Your task to perform on an android device: turn off location Image 0: 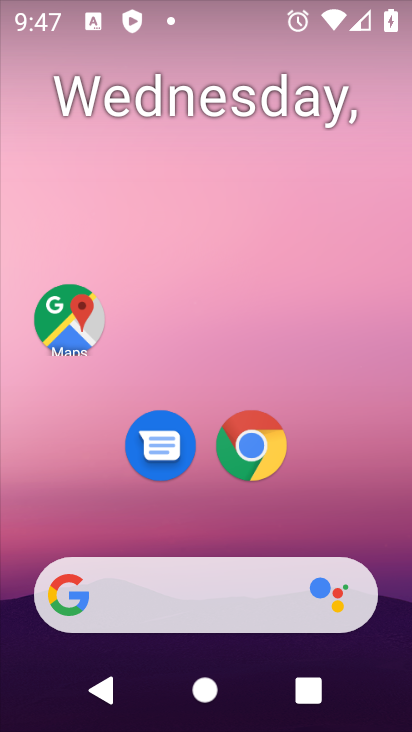
Step 0: drag from (343, 505) to (318, 59)
Your task to perform on an android device: turn off location Image 1: 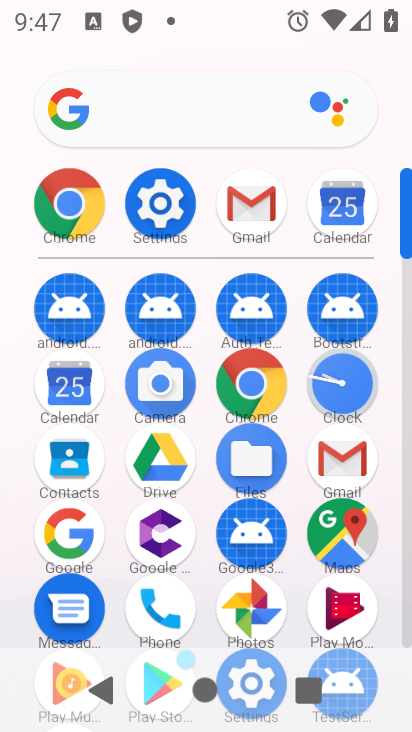
Step 1: click (167, 214)
Your task to perform on an android device: turn off location Image 2: 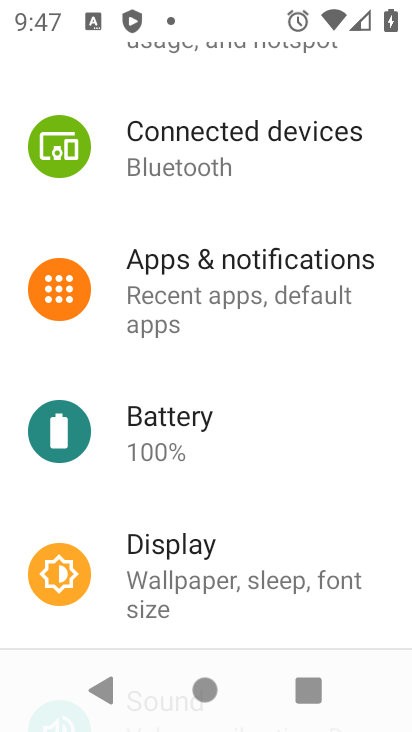
Step 2: drag from (225, 519) to (208, 160)
Your task to perform on an android device: turn off location Image 3: 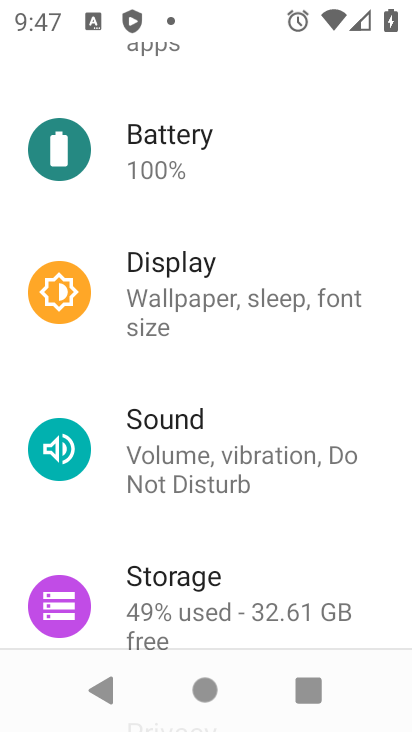
Step 3: drag from (175, 531) to (150, 199)
Your task to perform on an android device: turn off location Image 4: 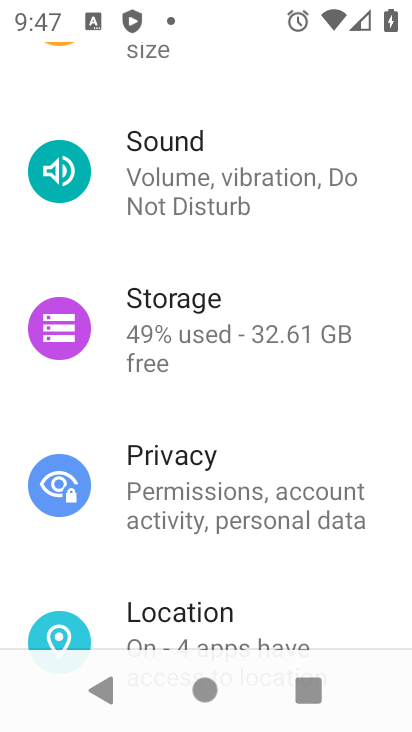
Step 4: drag from (219, 593) to (202, 246)
Your task to perform on an android device: turn off location Image 5: 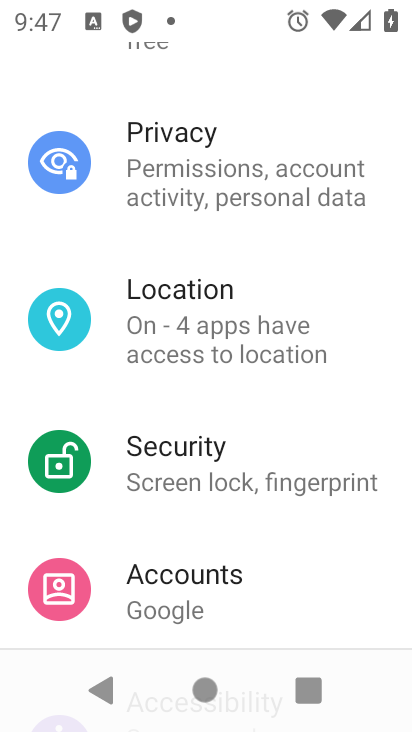
Step 5: click (175, 298)
Your task to perform on an android device: turn off location Image 6: 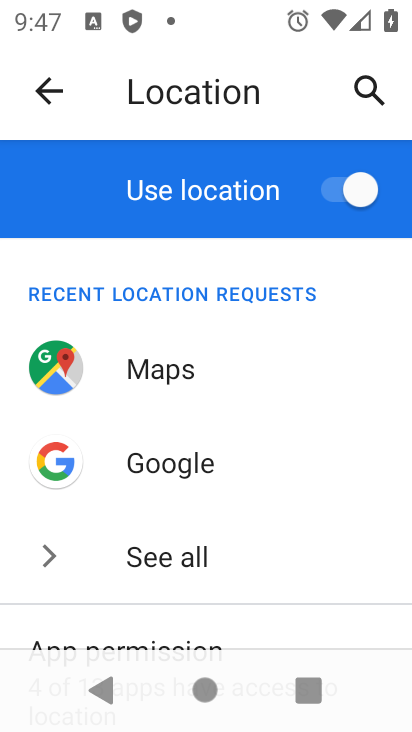
Step 6: drag from (188, 557) to (155, 316)
Your task to perform on an android device: turn off location Image 7: 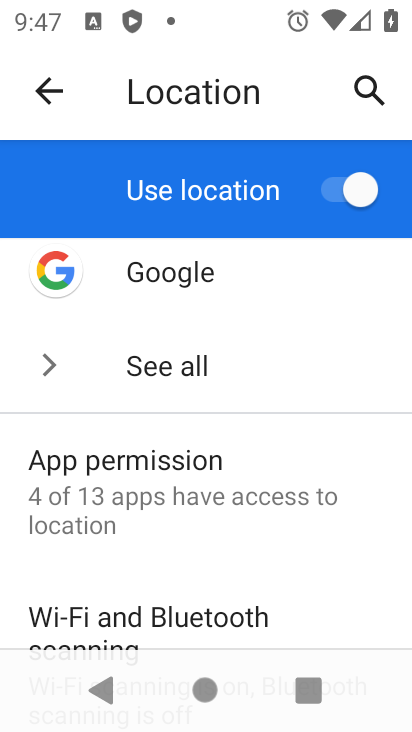
Step 7: click (322, 198)
Your task to perform on an android device: turn off location Image 8: 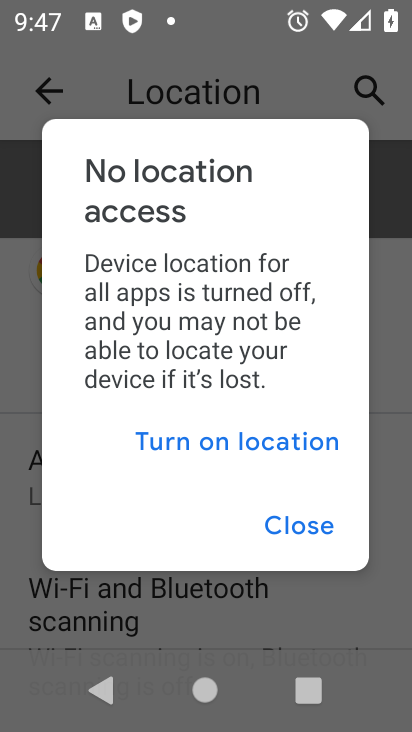
Step 8: task complete